Your task to perform on an android device: Go to wifi settings Image 0: 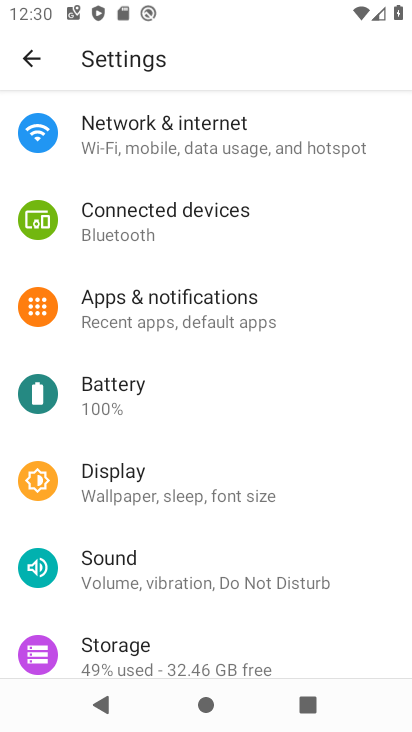
Step 0: click (125, 130)
Your task to perform on an android device: Go to wifi settings Image 1: 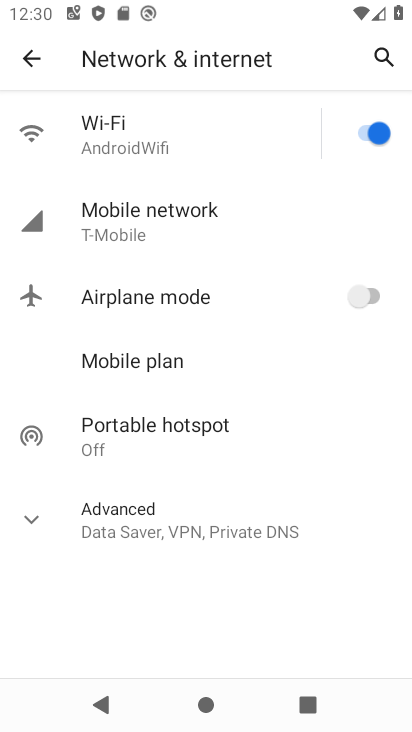
Step 1: click (127, 122)
Your task to perform on an android device: Go to wifi settings Image 2: 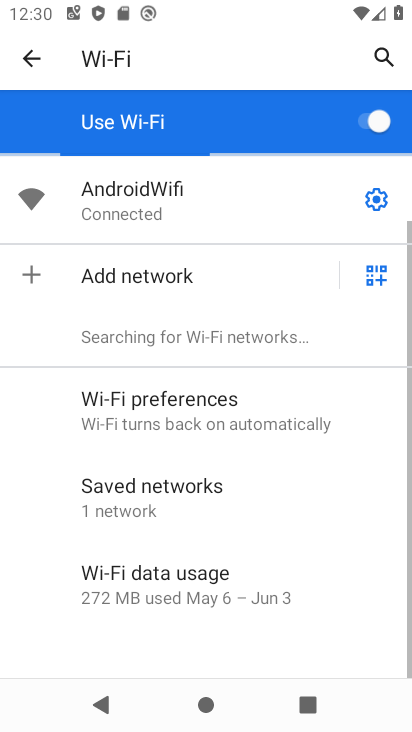
Step 2: task complete